Your task to perform on an android device: Open battery settings Image 0: 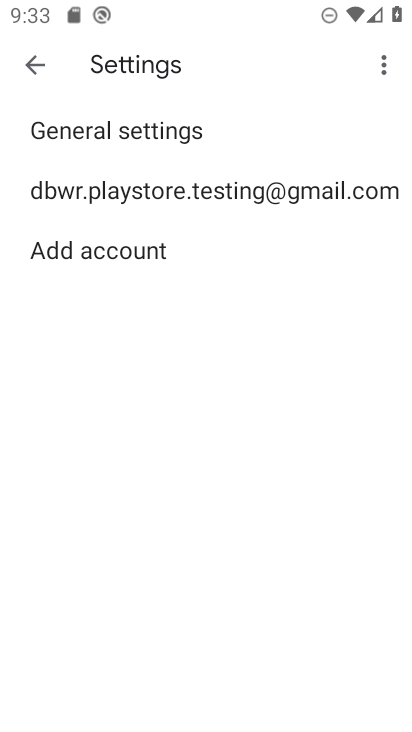
Step 0: press home button
Your task to perform on an android device: Open battery settings Image 1: 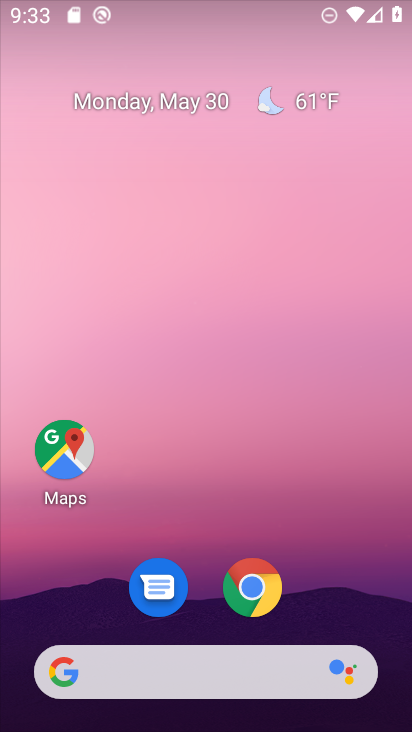
Step 1: drag from (220, 634) to (178, 0)
Your task to perform on an android device: Open battery settings Image 2: 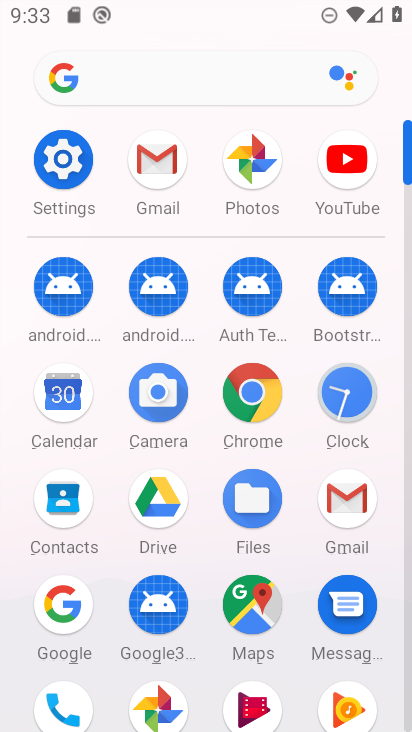
Step 2: click (66, 175)
Your task to perform on an android device: Open battery settings Image 3: 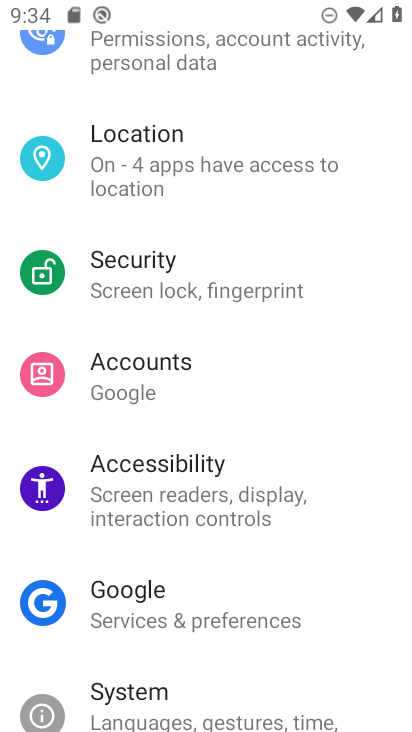
Step 3: drag from (183, 576) to (183, 275)
Your task to perform on an android device: Open battery settings Image 4: 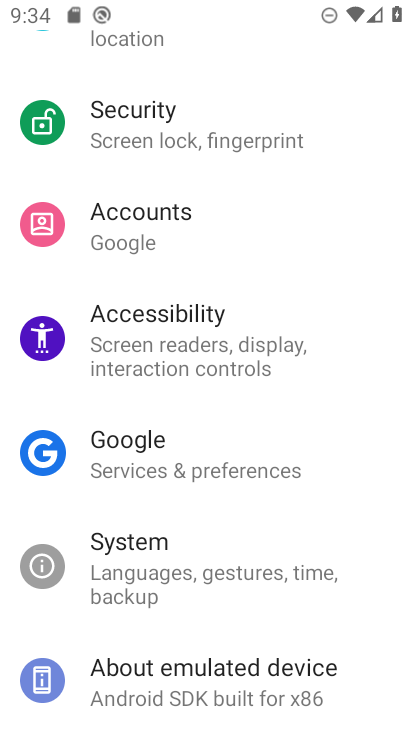
Step 4: drag from (179, 266) to (221, 731)
Your task to perform on an android device: Open battery settings Image 5: 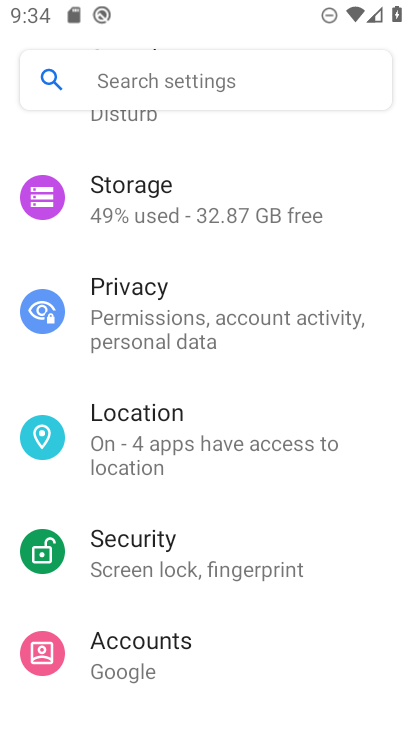
Step 5: drag from (207, 212) to (222, 640)
Your task to perform on an android device: Open battery settings Image 6: 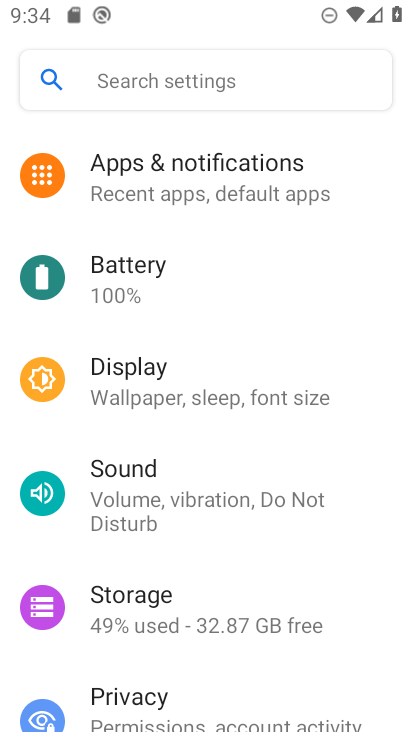
Step 6: click (151, 284)
Your task to perform on an android device: Open battery settings Image 7: 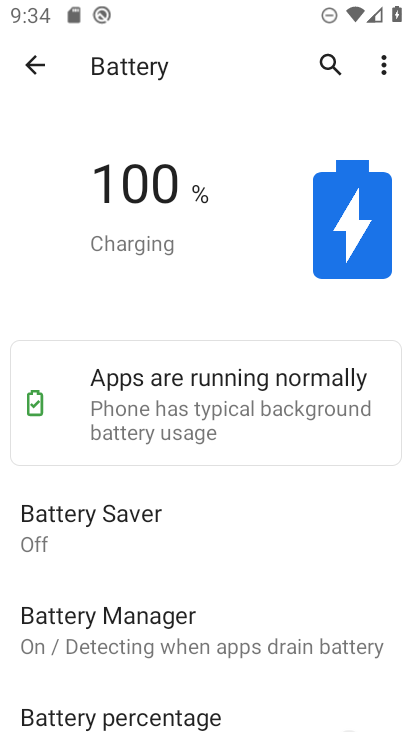
Step 7: task complete